Your task to perform on an android device: set default search engine in the chrome app Image 0: 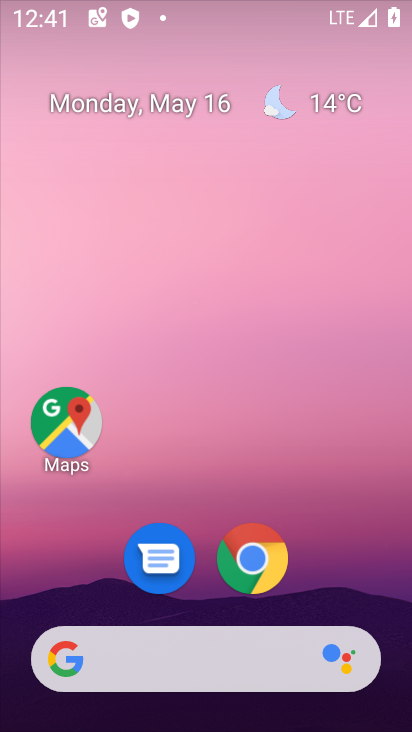
Step 0: drag from (345, 505) to (401, 0)
Your task to perform on an android device: set default search engine in the chrome app Image 1: 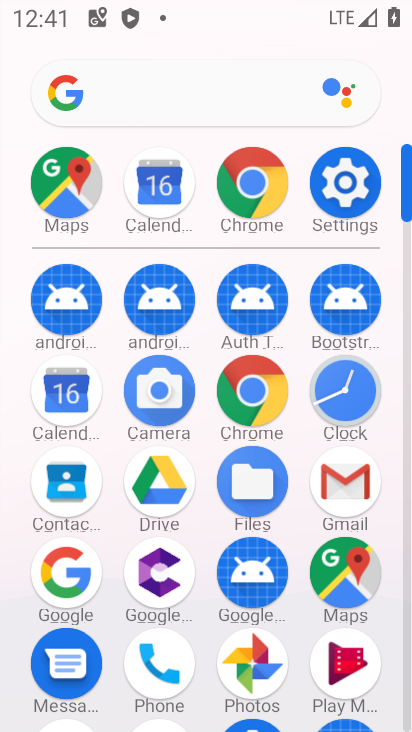
Step 1: click (256, 191)
Your task to perform on an android device: set default search engine in the chrome app Image 2: 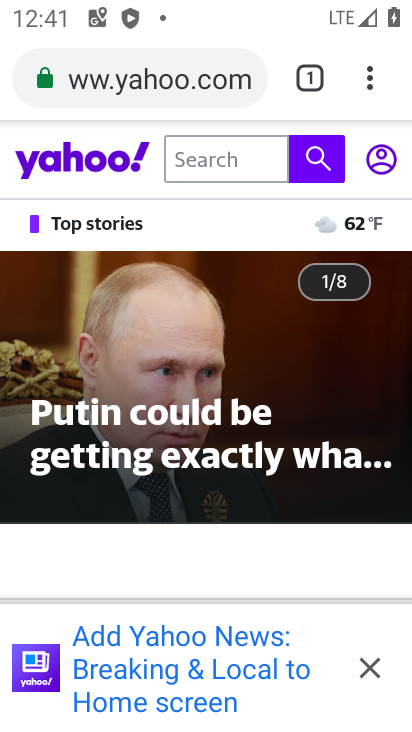
Step 2: drag from (369, 77) to (162, 627)
Your task to perform on an android device: set default search engine in the chrome app Image 3: 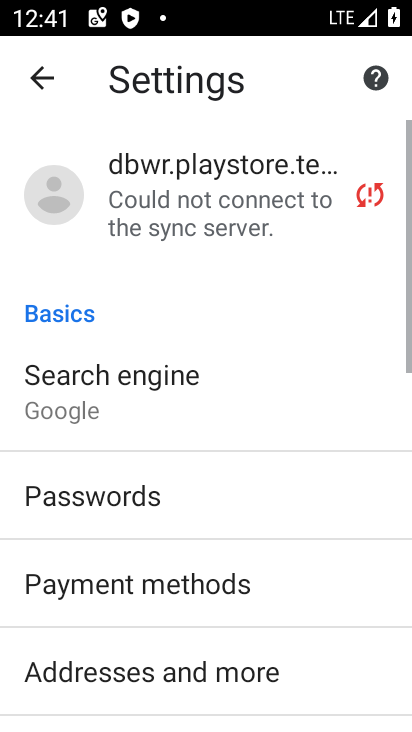
Step 3: drag from (240, 639) to (238, 176)
Your task to perform on an android device: set default search engine in the chrome app Image 4: 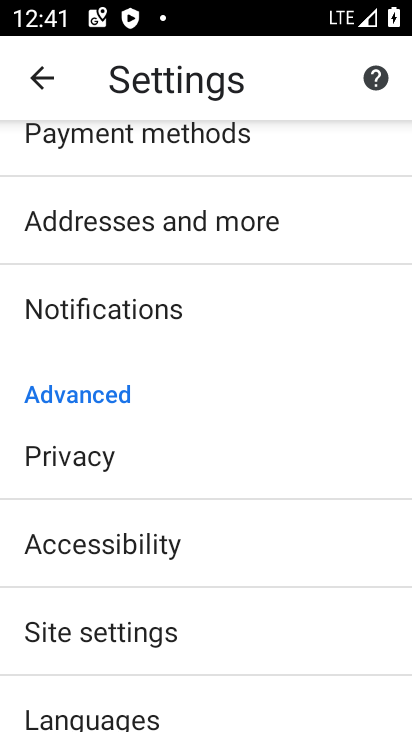
Step 4: drag from (134, 194) to (198, 698)
Your task to perform on an android device: set default search engine in the chrome app Image 5: 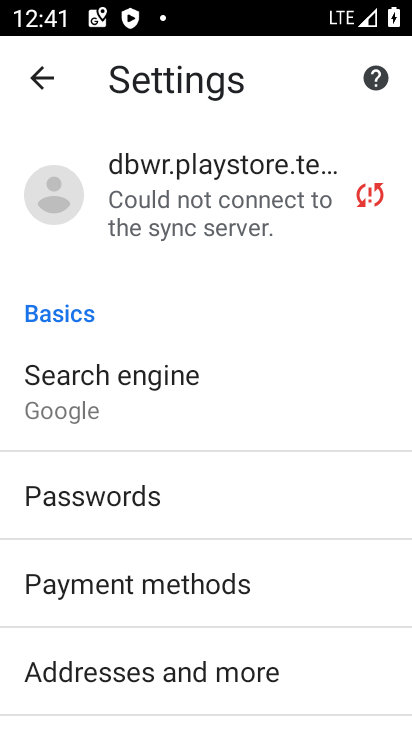
Step 5: click (208, 391)
Your task to perform on an android device: set default search engine in the chrome app Image 6: 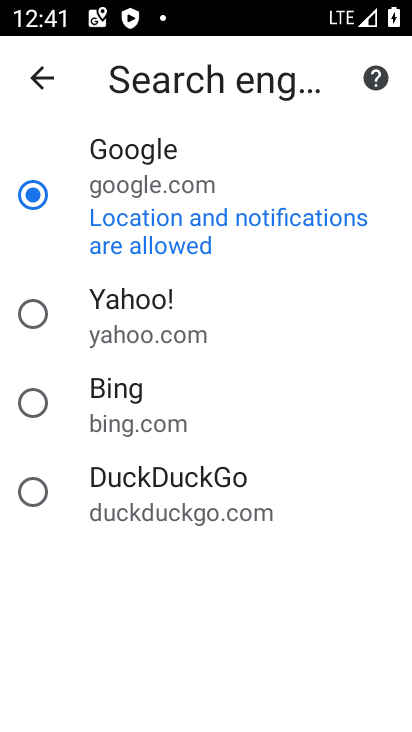
Step 6: task complete